Your task to perform on an android device: Open calendar and show me the fourth week of next month Image 0: 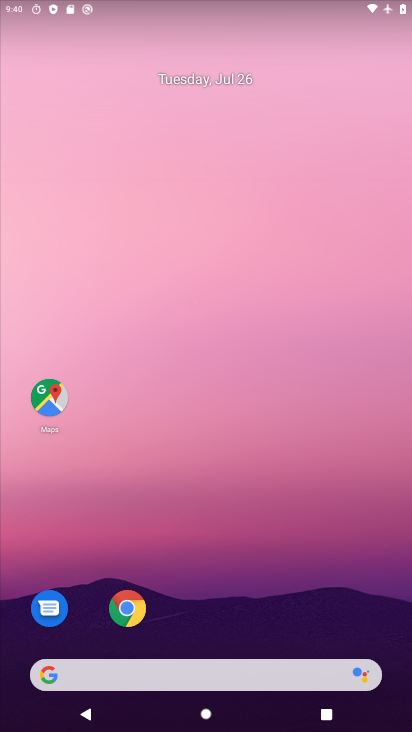
Step 0: drag from (163, 606) to (182, 239)
Your task to perform on an android device: Open calendar and show me the fourth week of next month Image 1: 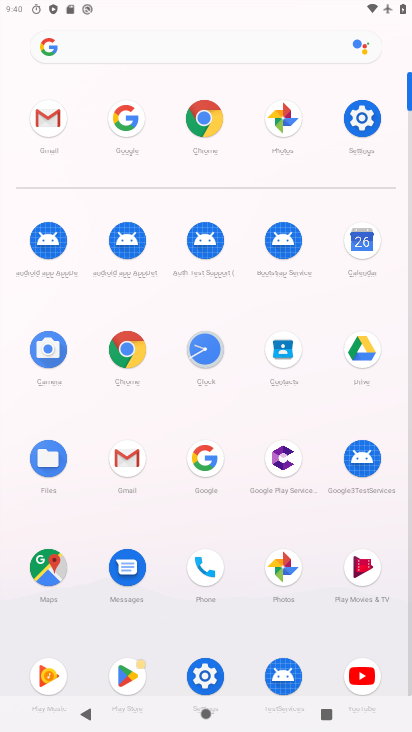
Step 1: click (364, 247)
Your task to perform on an android device: Open calendar and show me the fourth week of next month Image 2: 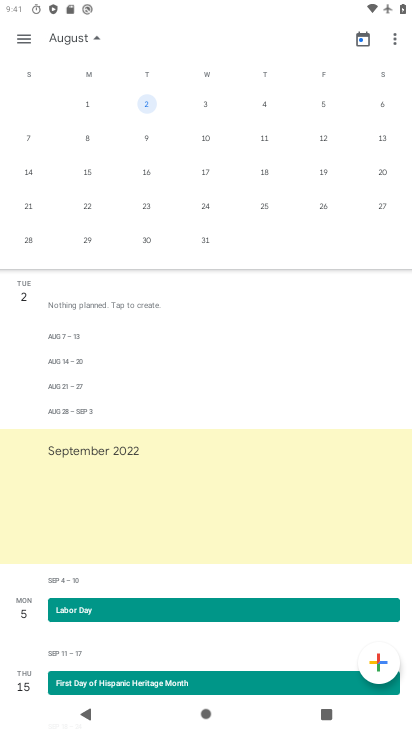
Step 2: click (27, 208)
Your task to perform on an android device: Open calendar and show me the fourth week of next month Image 3: 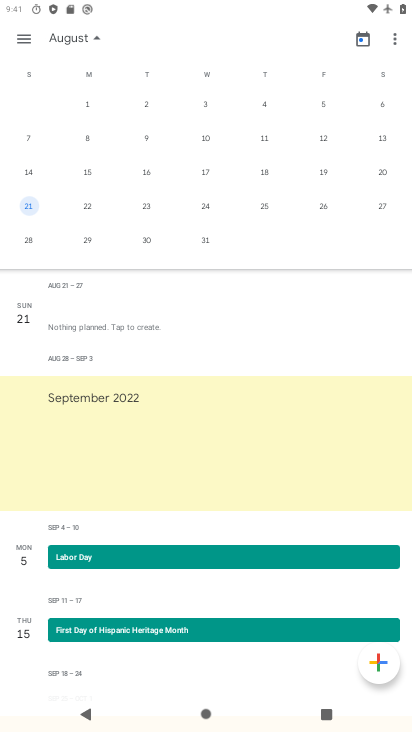
Step 3: task complete